Your task to perform on an android device: What is the news today? Image 0: 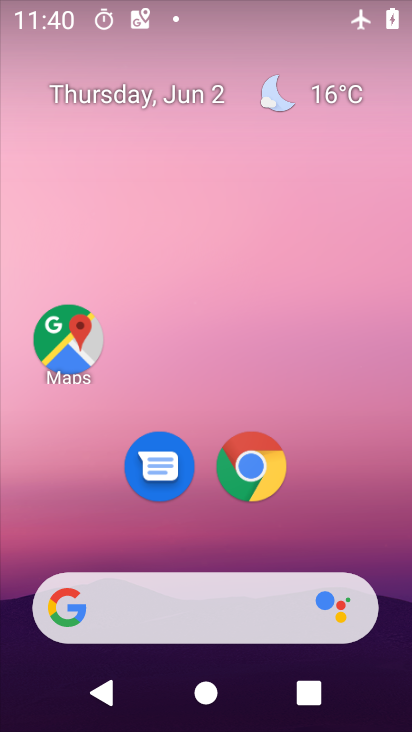
Step 0: drag from (208, 502) to (204, 215)
Your task to perform on an android device: What is the news today? Image 1: 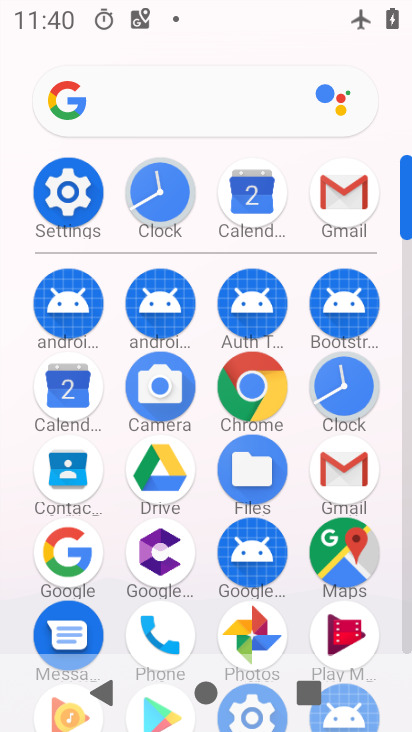
Step 1: click (64, 567)
Your task to perform on an android device: What is the news today? Image 2: 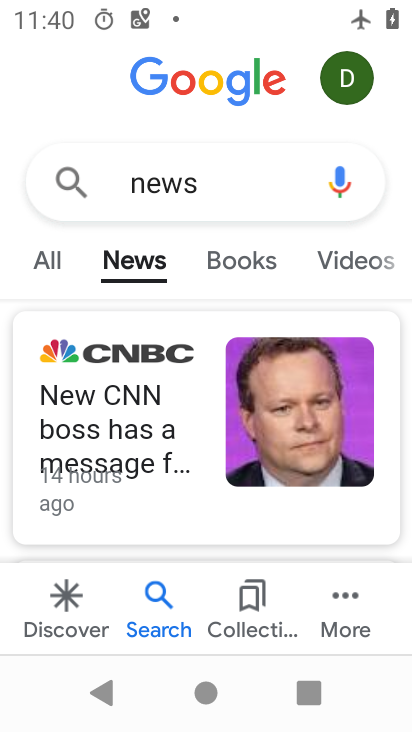
Step 2: task complete